Your task to perform on an android device: toggle improve location accuracy Image 0: 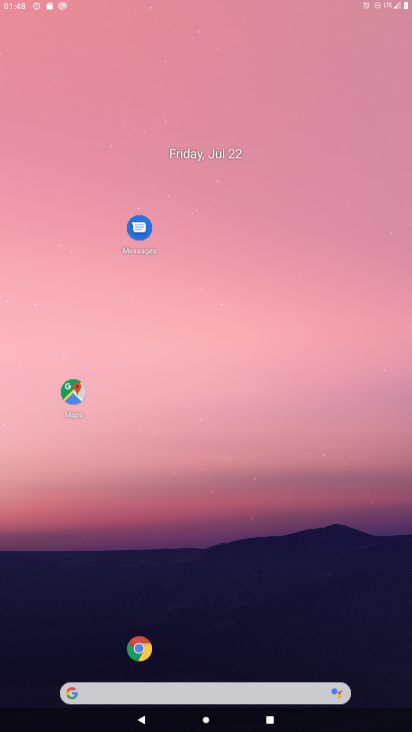
Step 0: click (69, 393)
Your task to perform on an android device: toggle improve location accuracy Image 1: 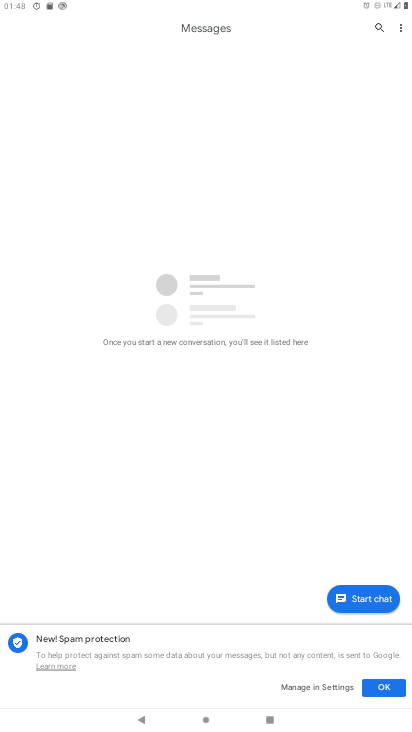
Step 1: press home button
Your task to perform on an android device: toggle improve location accuracy Image 2: 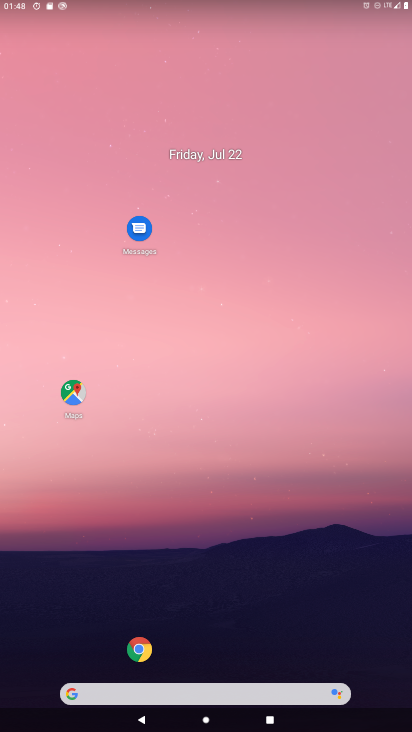
Step 2: drag from (90, 578) to (319, 112)
Your task to perform on an android device: toggle improve location accuracy Image 3: 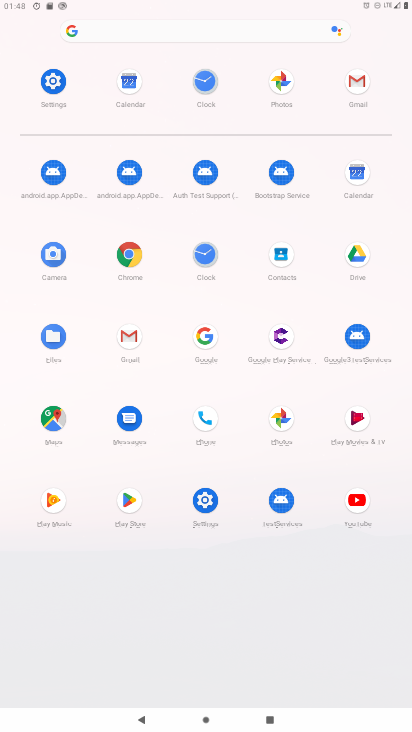
Step 3: click (206, 497)
Your task to perform on an android device: toggle improve location accuracy Image 4: 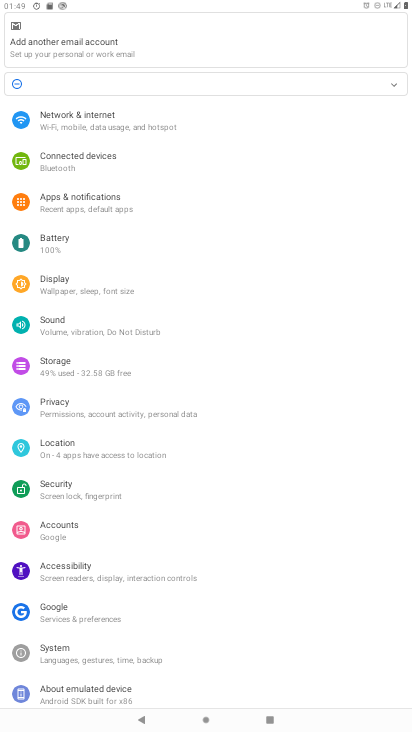
Step 4: click (73, 458)
Your task to perform on an android device: toggle improve location accuracy Image 5: 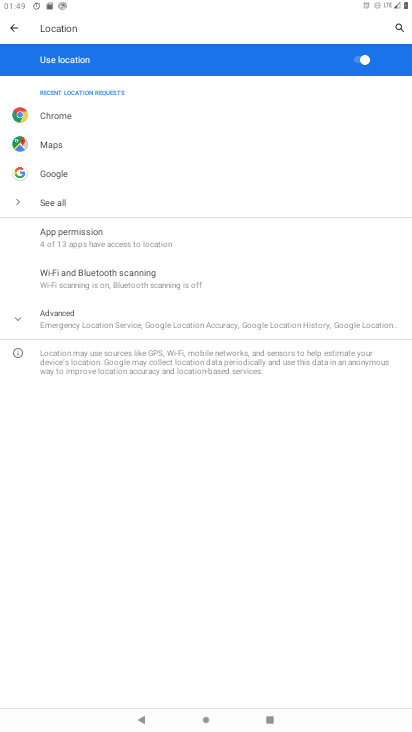
Step 5: click (100, 319)
Your task to perform on an android device: toggle improve location accuracy Image 6: 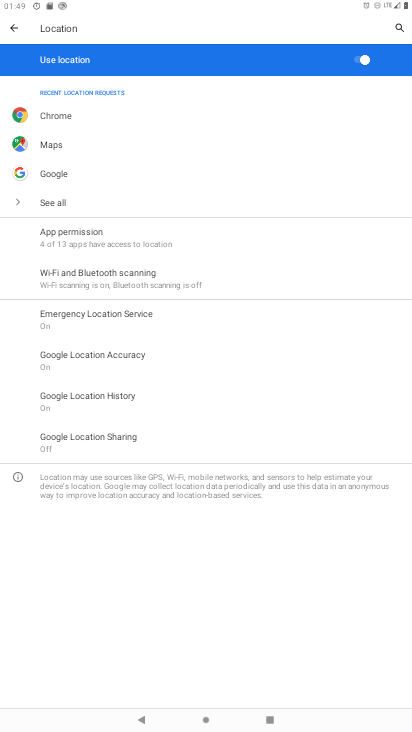
Step 6: task complete